Your task to perform on an android device: open app "eBay: The shopping marketplace" (install if not already installed) Image 0: 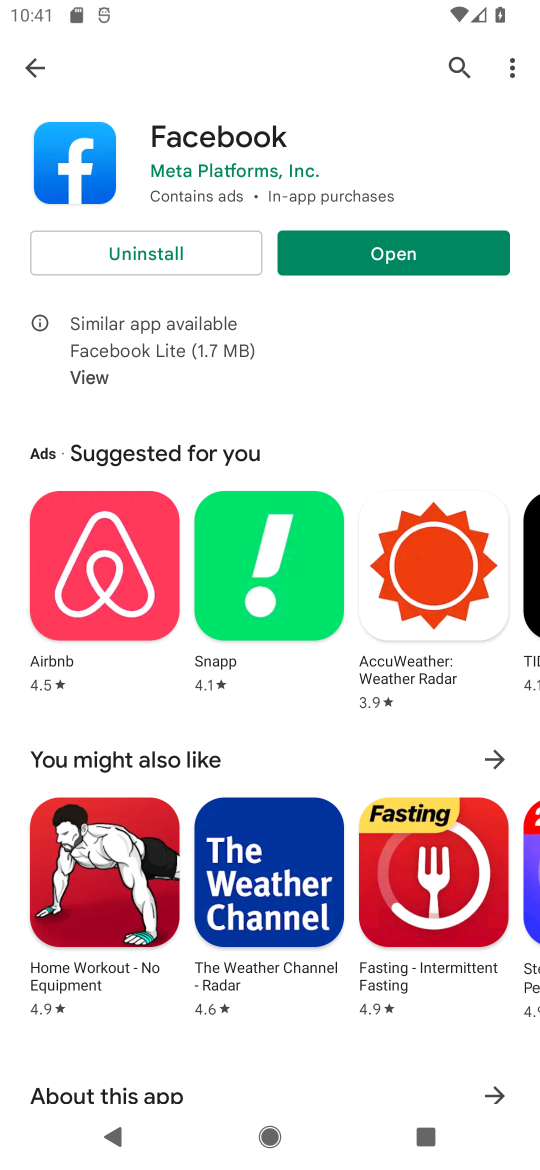
Step 0: click (459, 72)
Your task to perform on an android device: open app "eBay: The shopping marketplace" (install if not already installed) Image 1: 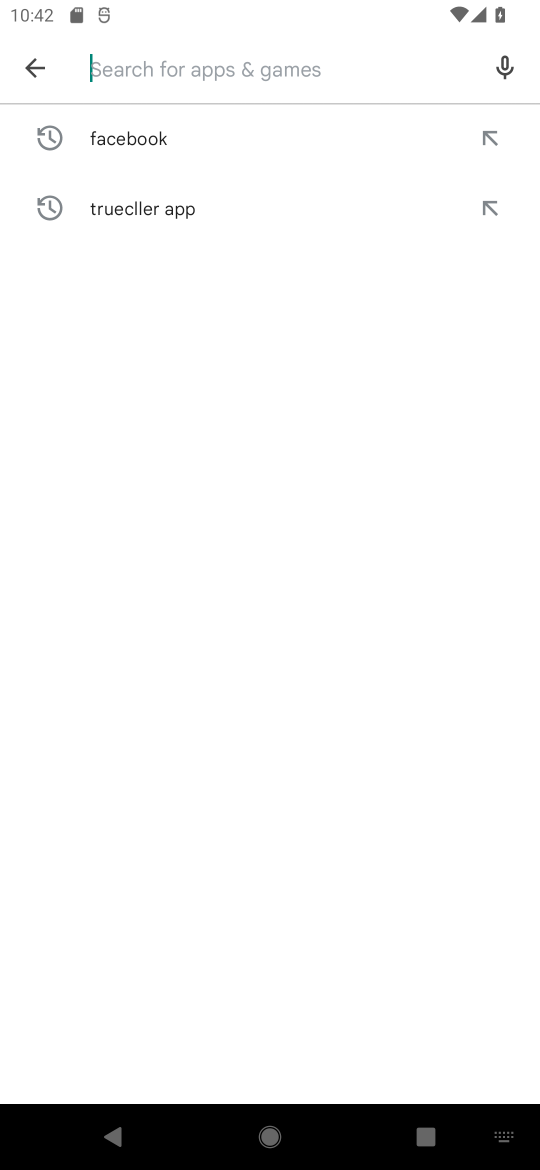
Step 1: type "ebay: the shopping marketplace"
Your task to perform on an android device: open app "eBay: The shopping marketplace" (install if not already installed) Image 2: 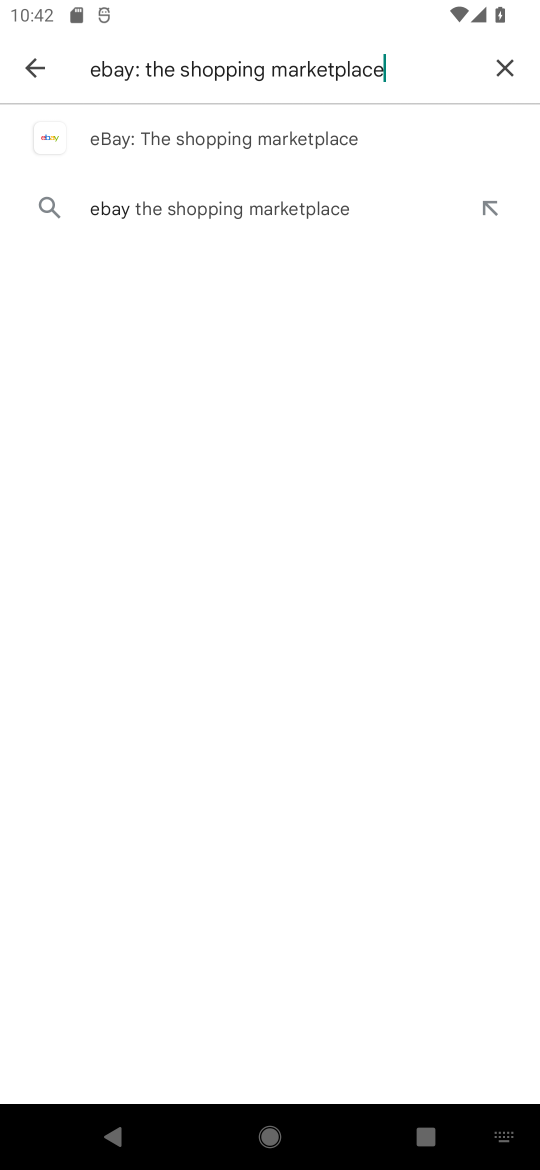
Step 2: click (436, 140)
Your task to perform on an android device: open app "eBay: The shopping marketplace" (install if not already installed) Image 3: 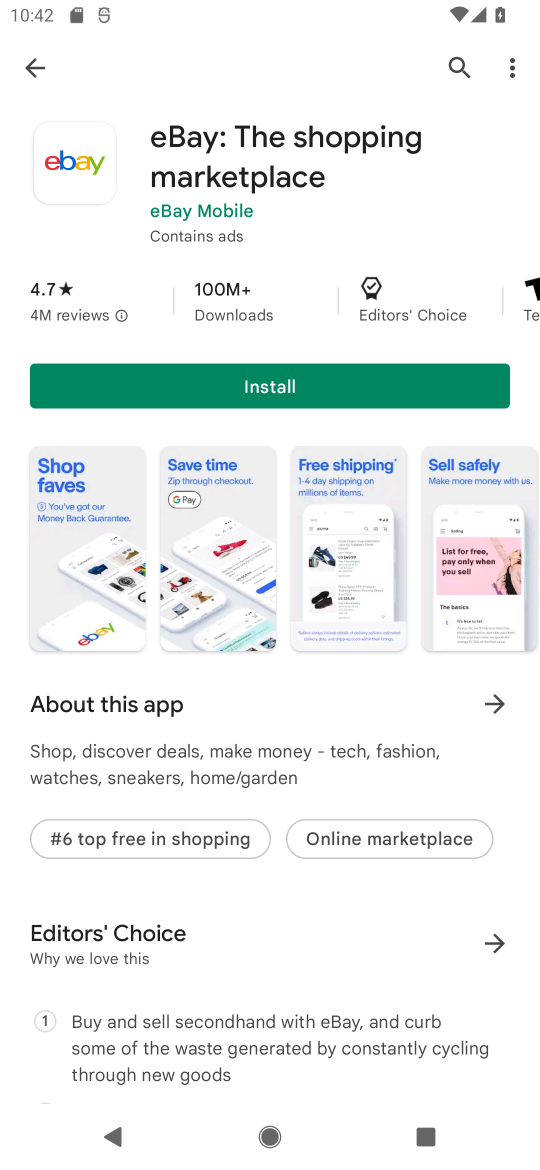
Step 3: click (302, 388)
Your task to perform on an android device: open app "eBay: The shopping marketplace" (install if not already installed) Image 4: 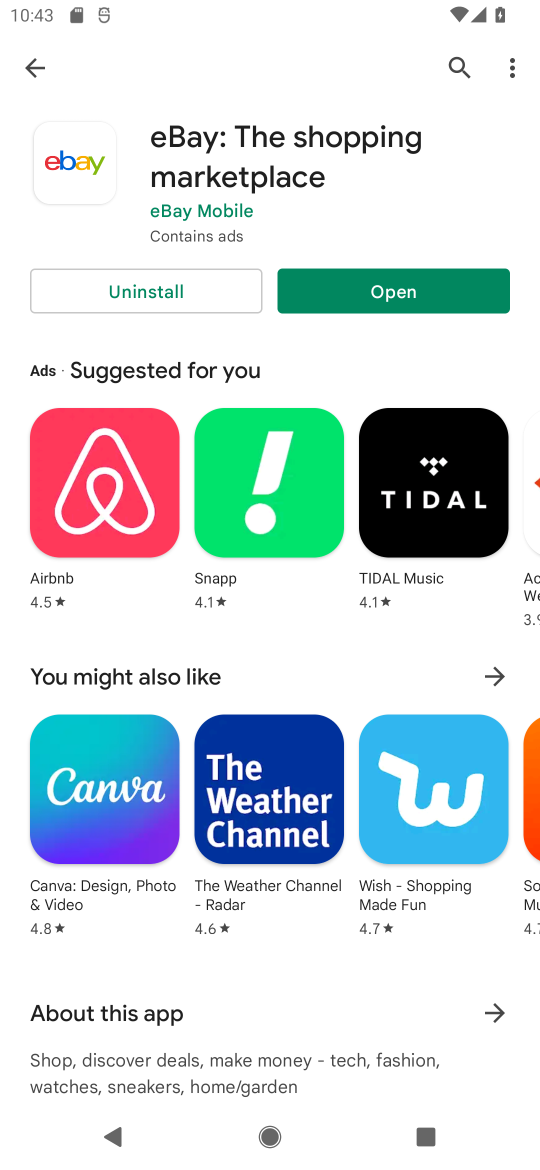
Step 4: click (379, 296)
Your task to perform on an android device: open app "eBay: The shopping marketplace" (install if not already installed) Image 5: 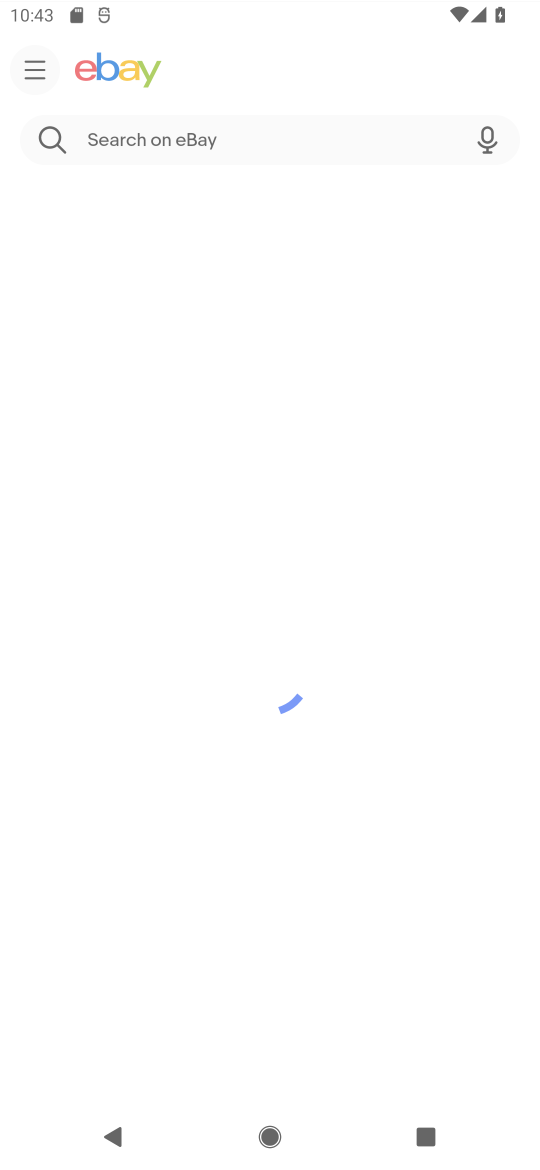
Step 5: task complete